Your task to perform on an android device: Open Android settings Image 0: 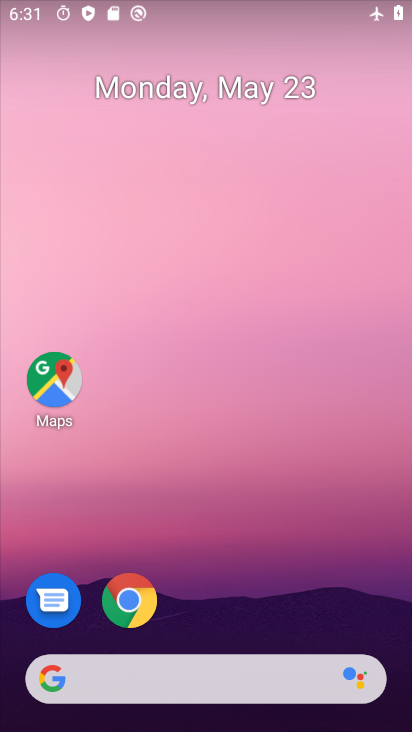
Step 0: drag from (224, 622) to (253, 211)
Your task to perform on an android device: Open Android settings Image 1: 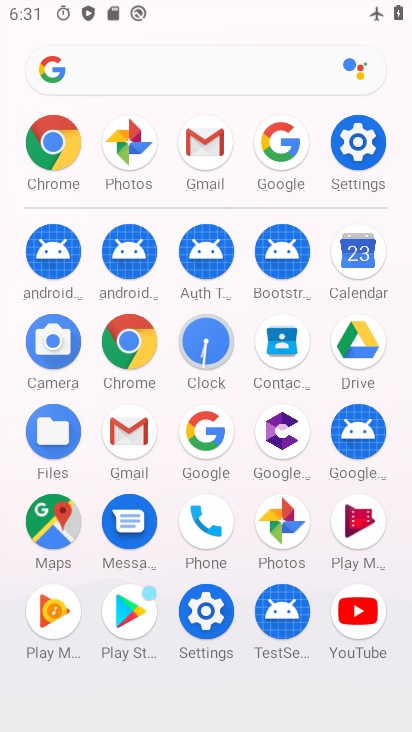
Step 1: click (345, 159)
Your task to perform on an android device: Open Android settings Image 2: 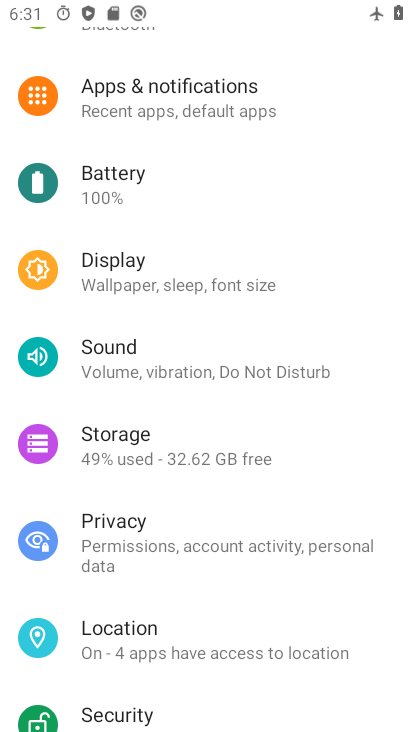
Step 2: task complete